Your task to perform on an android device: Search for sushi restaurants on Maps Image 0: 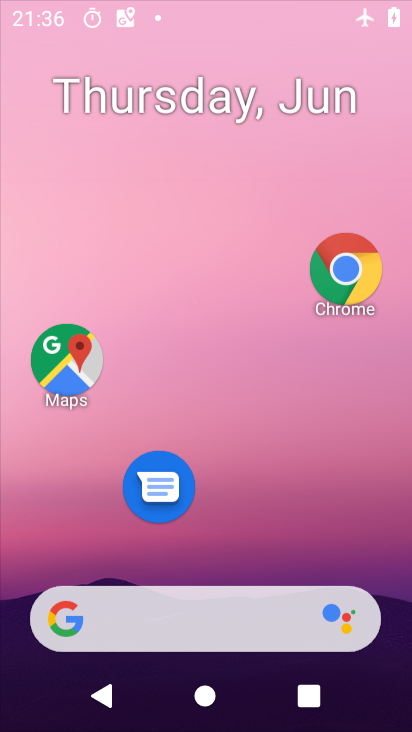
Step 0: click (152, 14)
Your task to perform on an android device: Search for sushi restaurants on Maps Image 1: 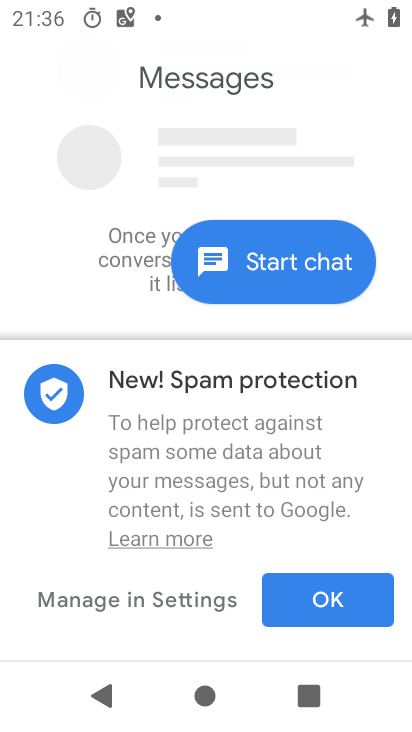
Step 1: drag from (188, 500) to (223, 245)
Your task to perform on an android device: Search for sushi restaurants on Maps Image 2: 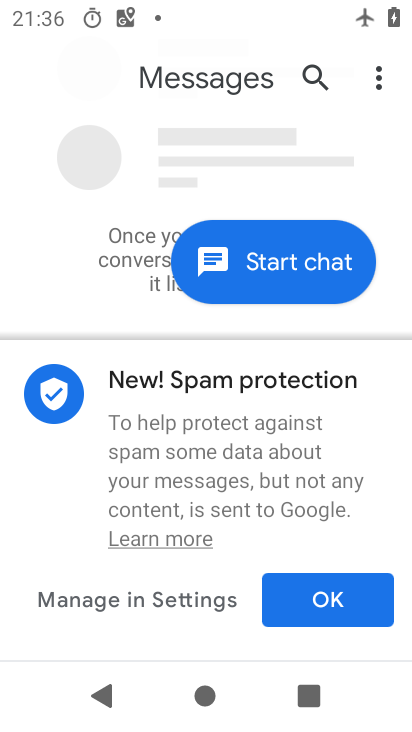
Step 2: press home button
Your task to perform on an android device: Search for sushi restaurants on Maps Image 3: 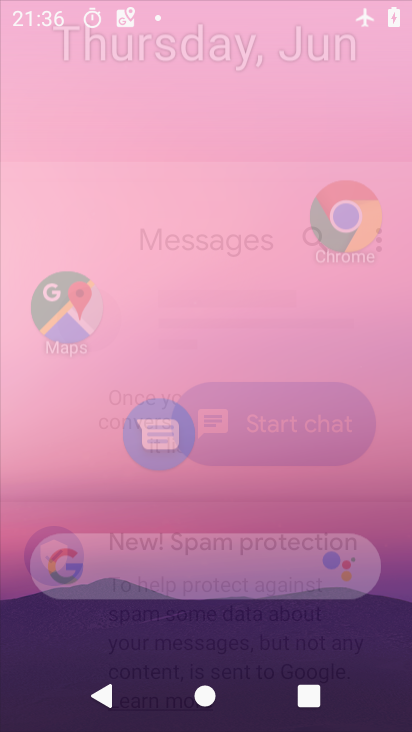
Step 3: drag from (155, 591) to (74, 20)
Your task to perform on an android device: Search for sushi restaurants on Maps Image 4: 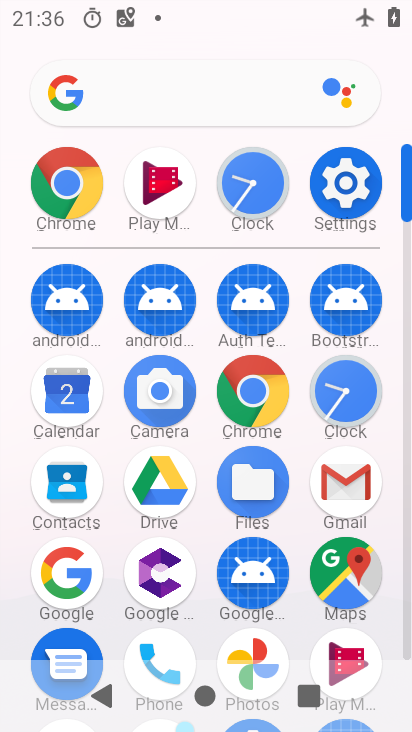
Step 4: click (344, 555)
Your task to perform on an android device: Search for sushi restaurants on Maps Image 5: 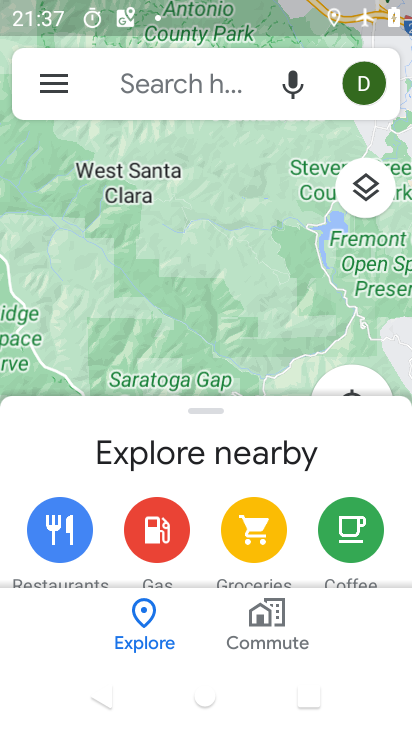
Step 5: drag from (220, 527) to (317, 185)
Your task to perform on an android device: Search for sushi restaurants on Maps Image 6: 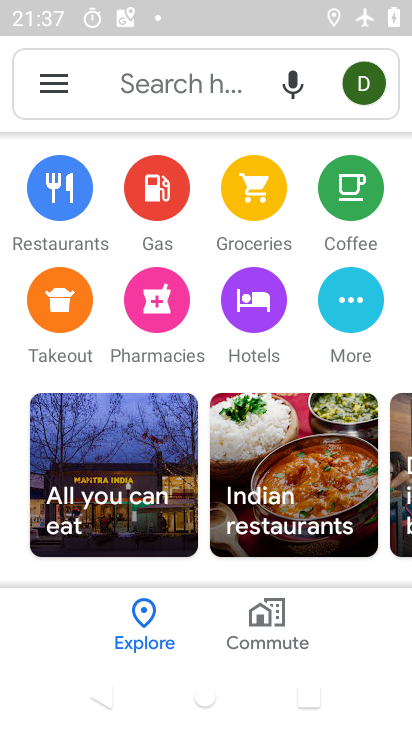
Step 6: click (151, 68)
Your task to perform on an android device: Search for sushi restaurants on Maps Image 7: 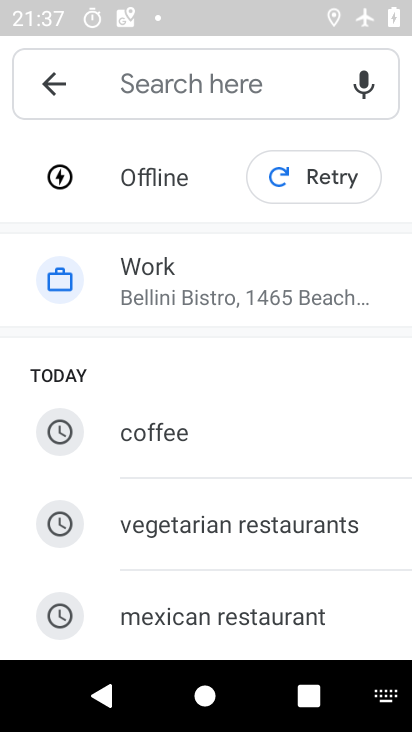
Step 7: drag from (243, 570) to (295, 112)
Your task to perform on an android device: Search for sushi restaurants on Maps Image 8: 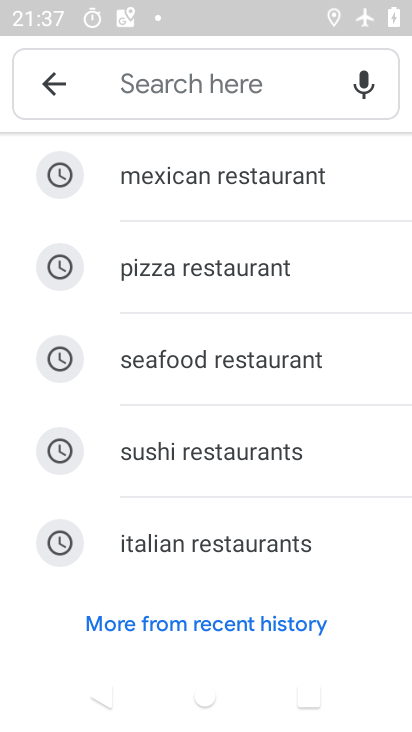
Step 8: click (185, 467)
Your task to perform on an android device: Search for sushi restaurants on Maps Image 9: 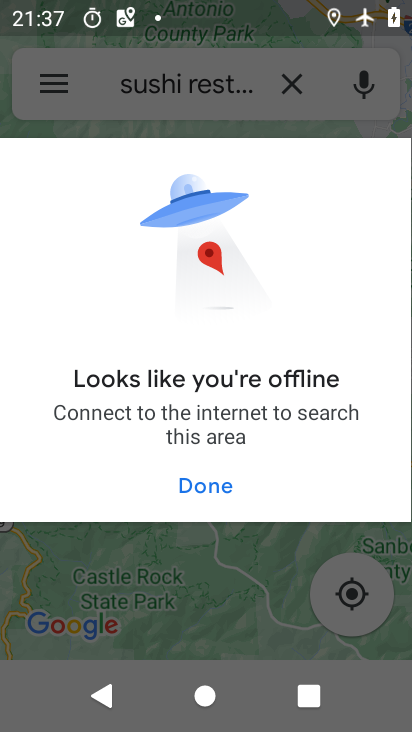
Step 9: drag from (251, 475) to (344, 23)
Your task to perform on an android device: Search for sushi restaurants on Maps Image 10: 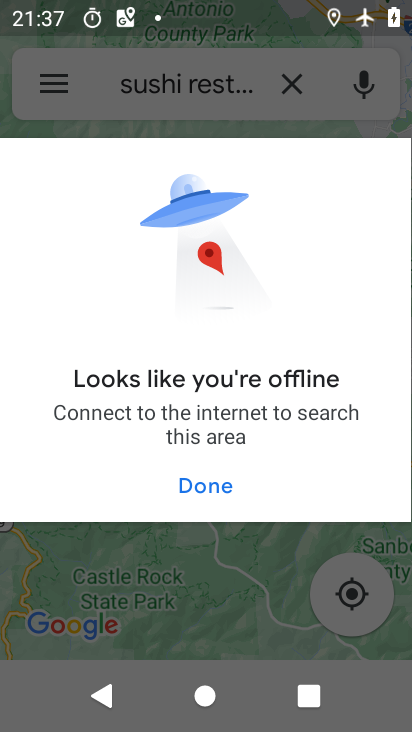
Step 10: click (199, 496)
Your task to perform on an android device: Search for sushi restaurants on Maps Image 11: 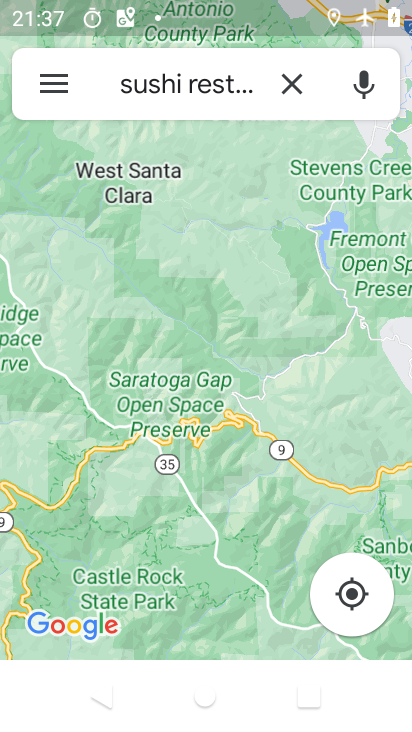
Step 11: task complete